Your task to perform on an android device: Open internet settings Image 0: 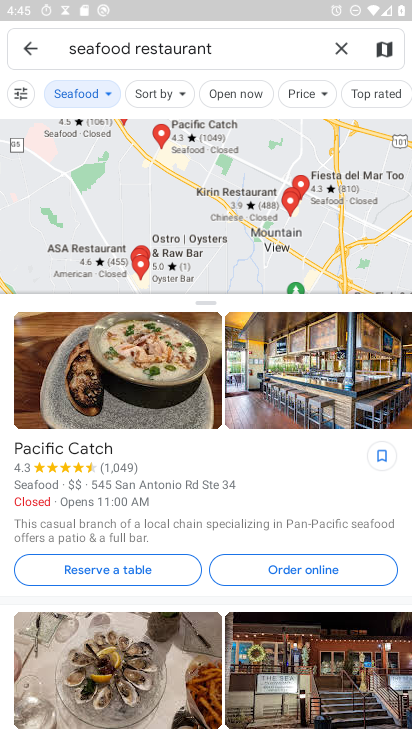
Step 0: press home button
Your task to perform on an android device: Open internet settings Image 1: 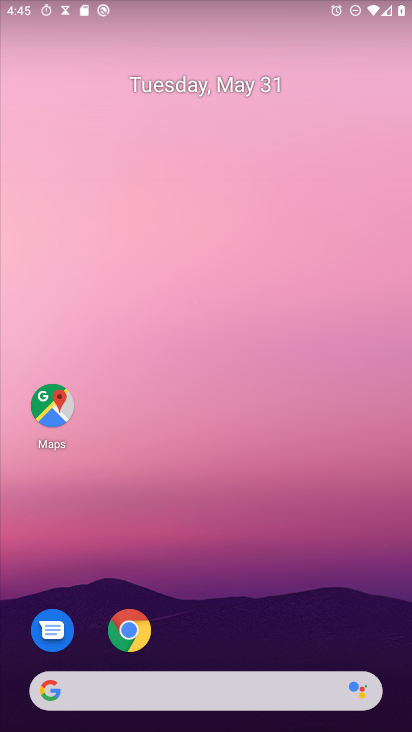
Step 1: drag from (252, 664) to (360, 18)
Your task to perform on an android device: Open internet settings Image 2: 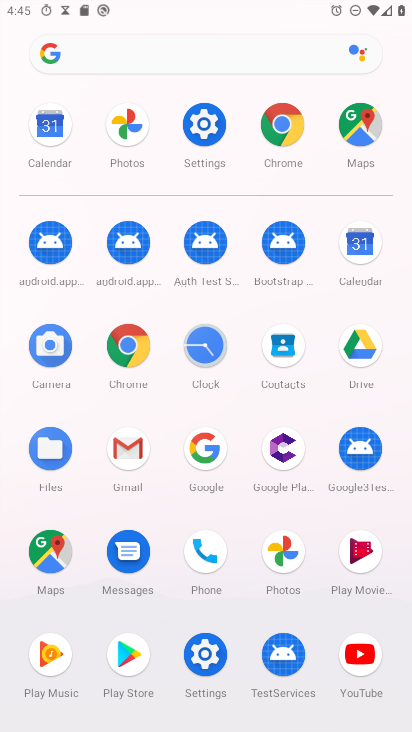
Step 2: click (198, 135)
Your task to perform on an android device: Open internet settings Image 3: 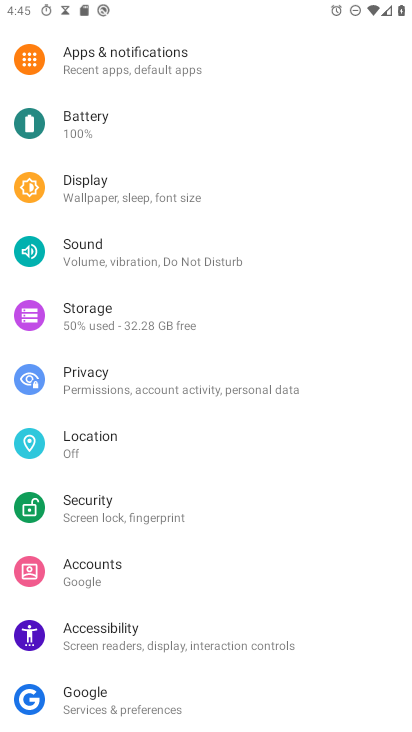
Step 3: drag from (183, 152) to (229, 560)
Your task to perform on an android device: Open internet settings Image 4: 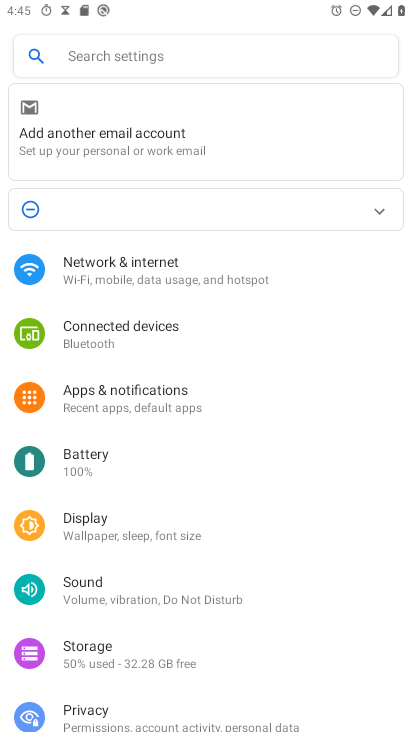
Step 4: click (191, 264)
Your task to perform on an android device: Open internet settings Image 5: 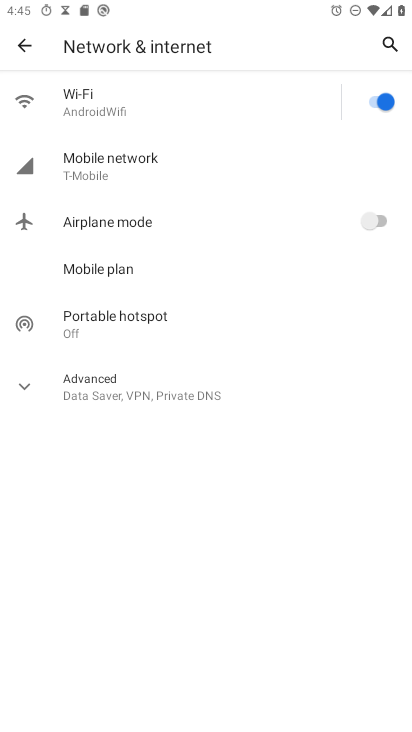
Step 5: click (142, 102)
Your task to perform on an android device: Open internet settings Image 6: 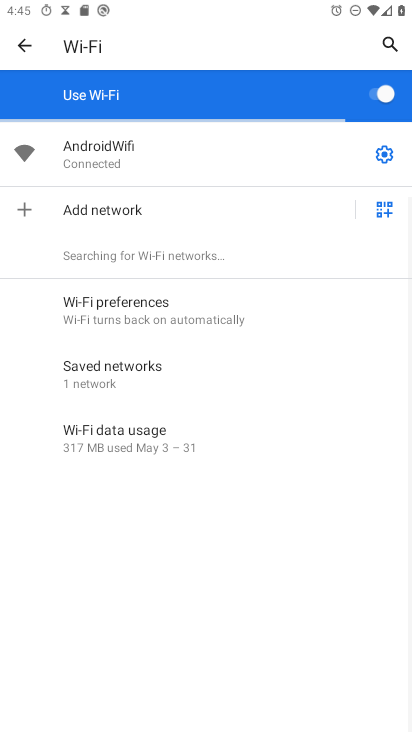
Step 6: press back button
Your task to perform on an android device: Open internet settings Image 7: 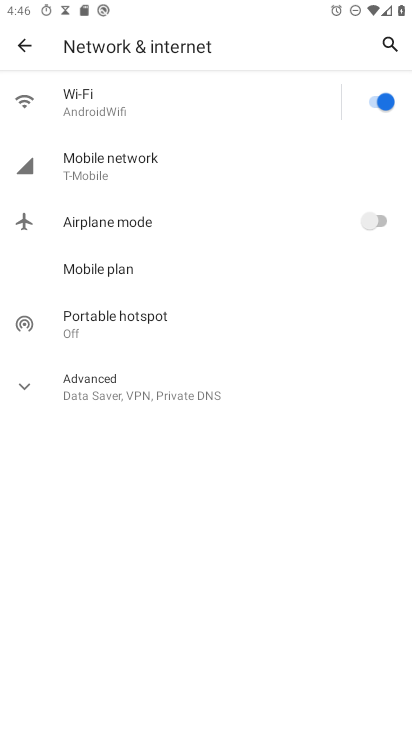
Step 7: click (154, 163)
Your task to perform on an android device: Open internet settings Image 8: 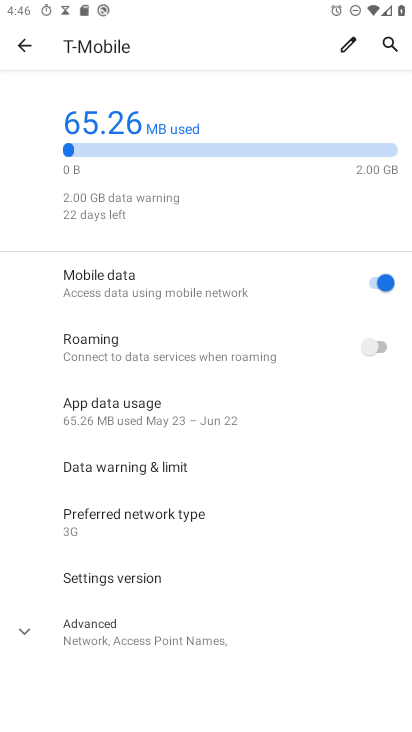
Step 8: task complete